Your task to perform on an android device: Open Google Chrome and open the bookmarks view Image 0: 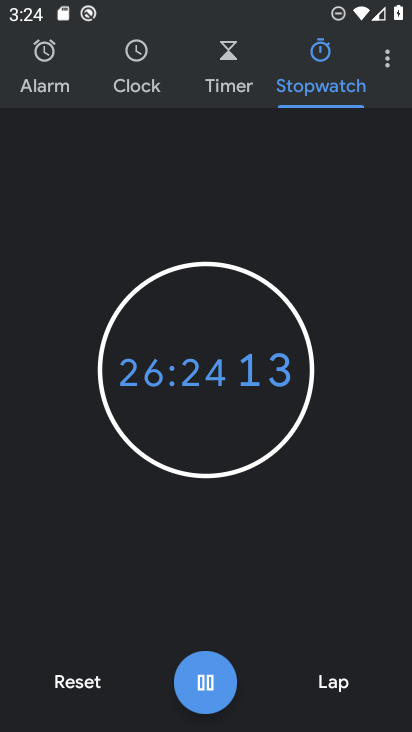
Step 0: press home button
Your task to perform on an android device: Open Google Chrome and open the bookmarks view Image 1: 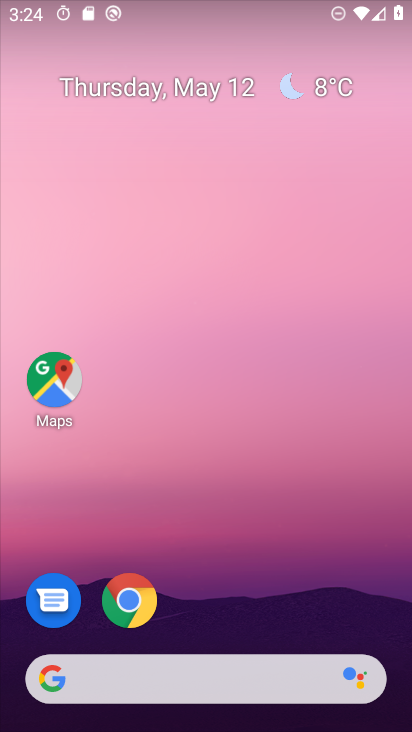
Step 1: click (125, 599)
Your task to perform on an android device: Open Google Chrome and open the bookmarks view Image 2: 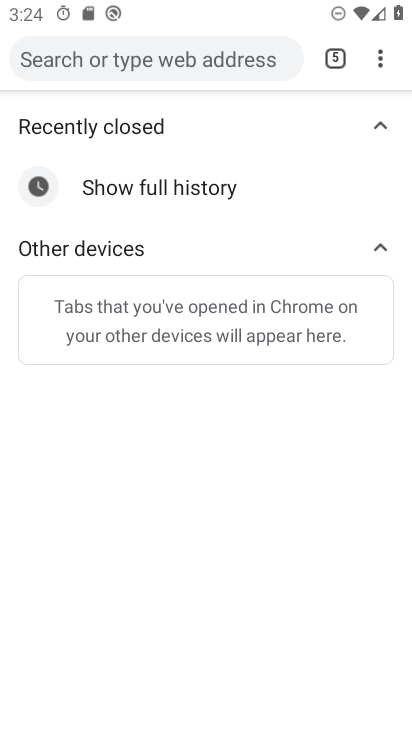
Step 2: click (381, 62)
Your task to perform on an android device: Open Google Chrome and open the bookmarks view Image 3: 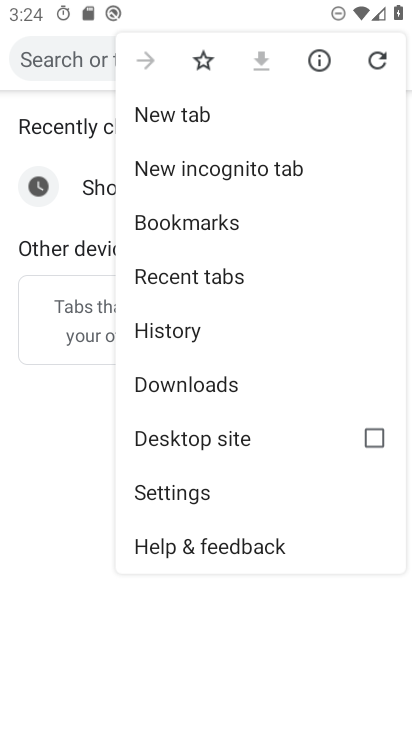
Step 3: click (216, 218)
Your task to perform on an android device: Open Google Chrome and open the bookmarks view Image 4: 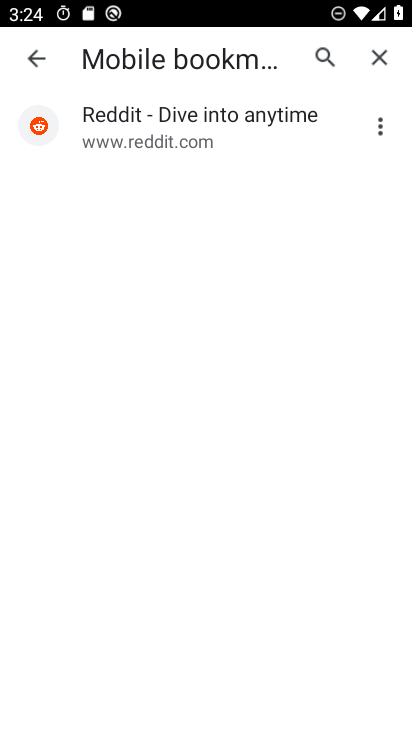
Step 4: task complete